Your task to perform on an android device: turn off sleep mode Image 0: 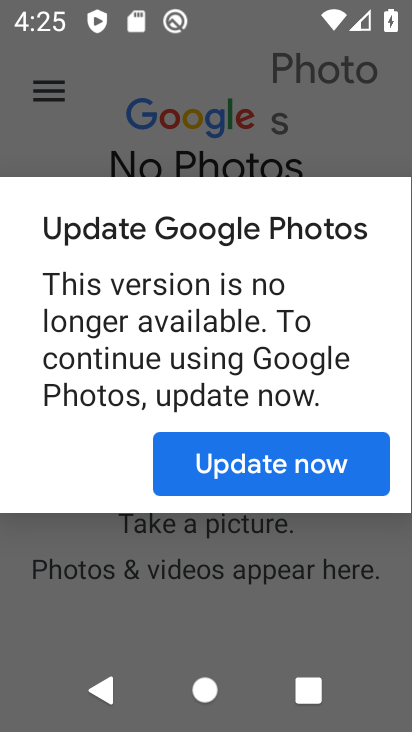
Step 0: press home button
Your task to perform on an android device: turn off sleep mode Image 1: 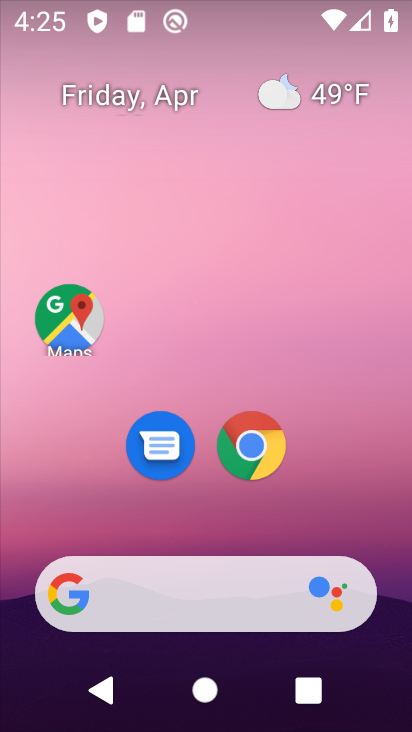
Step 1: drag from (334, 427) to (305, 61)
Your task to perform on an android device: turn off sleep mode Image 2: 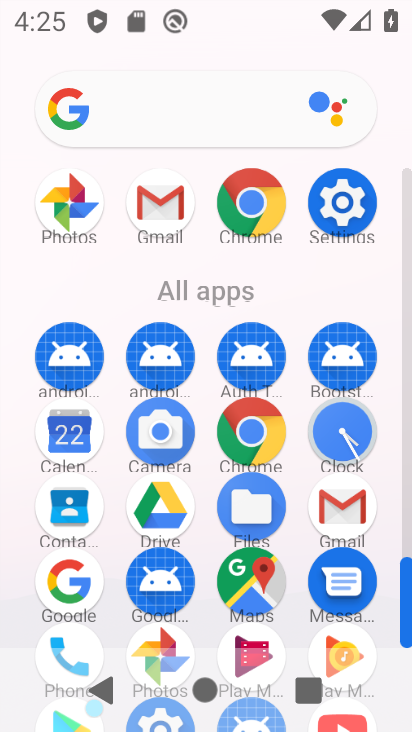
Step 2: click (360, 189)
Your task to perform on an android device: turn off sleep mode Image 3: 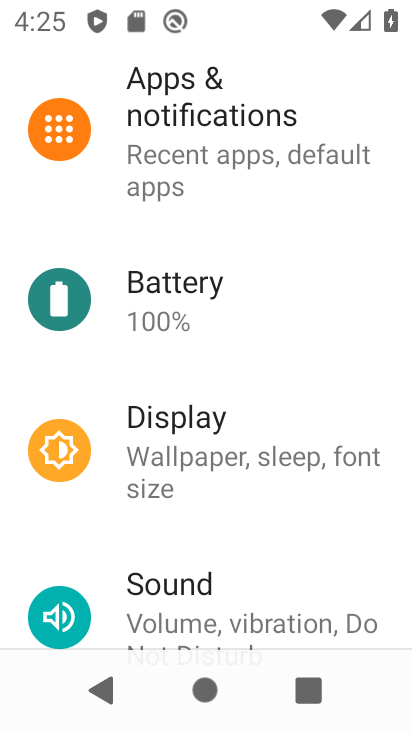
Step 3: drag from (290, 208) to (250, 626)
Your task to perform on an android device: turn off sleep mode Image 4: 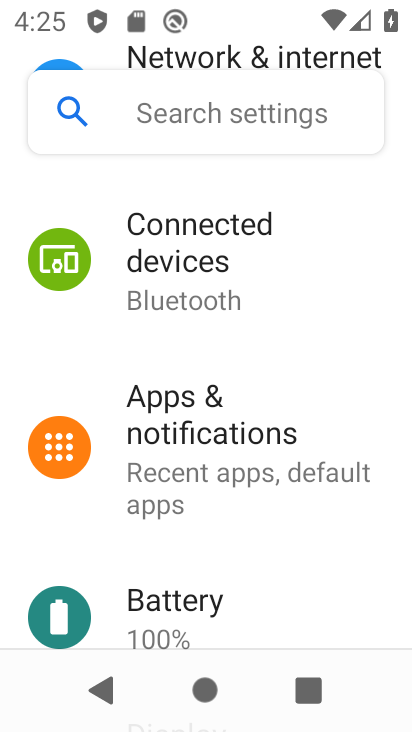
Step 4: drag from (220, 543) to (292, 170)
Your task to perform on an android device: turn off sleep mode Image 5: 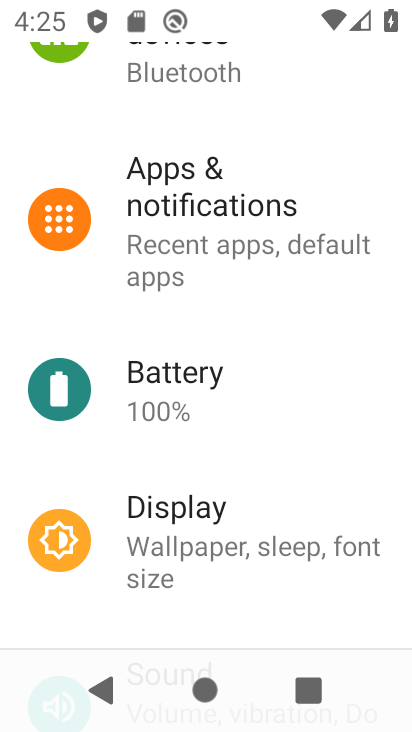
Step 5: click (168, 504)
Your task to perform on an android device: turn off sleep mode Image 6: 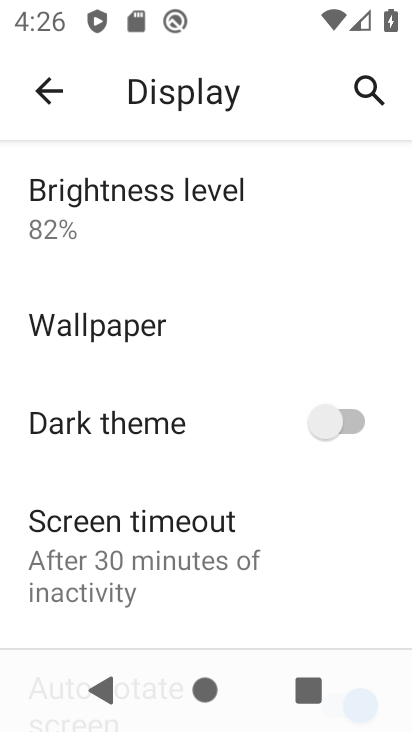
Step 6: click (147, 536)
Your task to perform on an android device: turn off sleep mode Image 7: 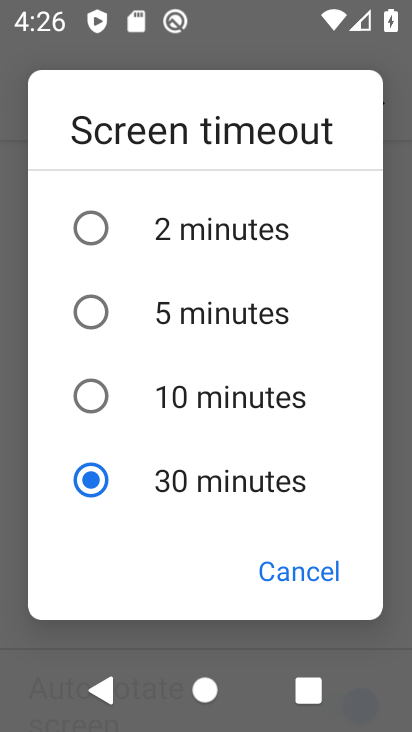
Step 7: task complete